Your task to perform on an android device: What's on my calendar today? Image 0: 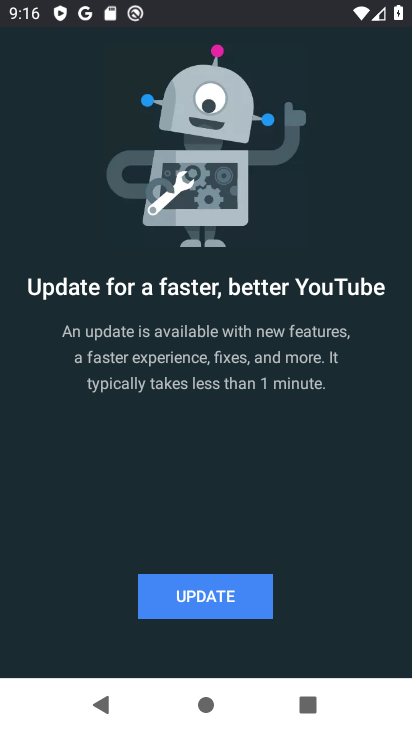
Step 0: press home button
Your task to perform on an android device: What's on my calendar today? Image 1: 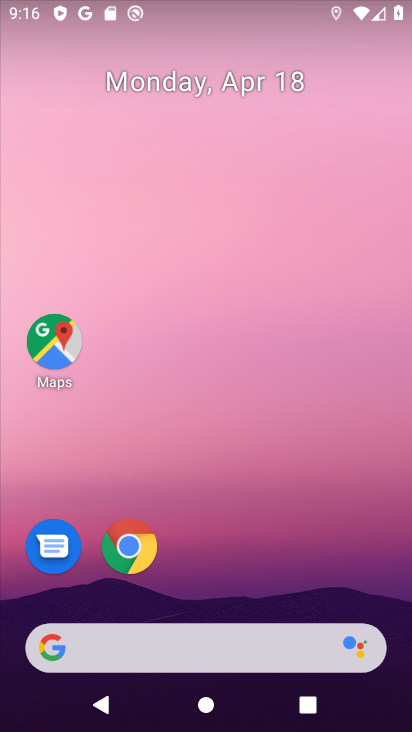
Step 1: drag from (206, 599) to (284, 161)
Your task to perform on an android device: What's on my calendar today? Image 2: 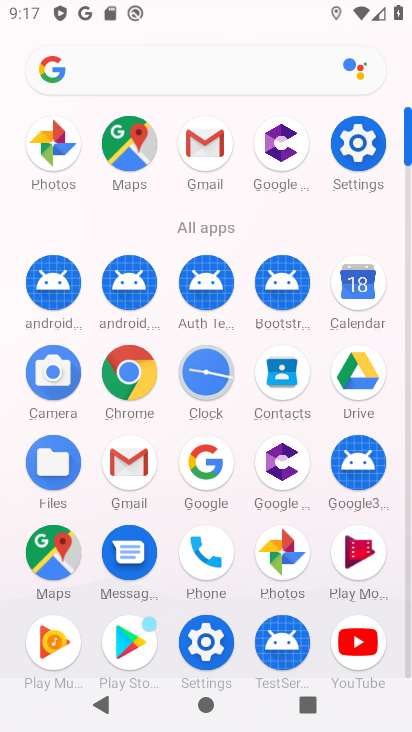
Step 2: click (367, 301)
Your task to perform on an android device: What's on my calendar today? Image 3: 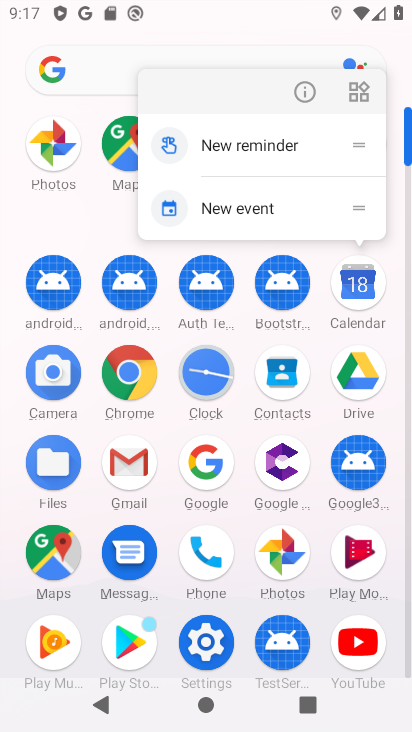
Step 3: click (356, 301)
Your task to perform on an android device: What's on my calendar today? Image 4: 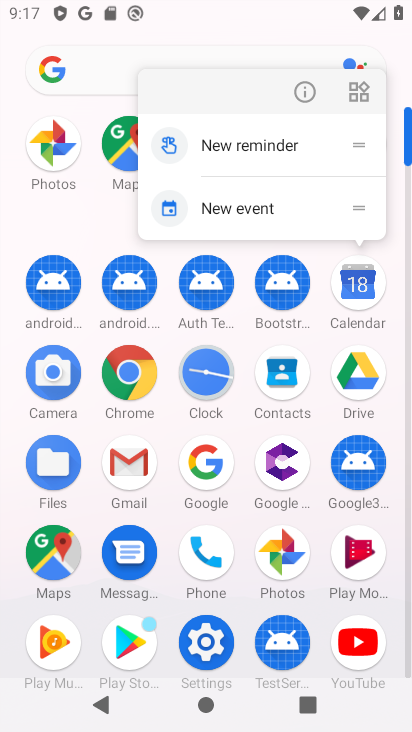
Step 4: click (356, 301)
Your task to perform on an android device: What's on my calendar today? Image 5: 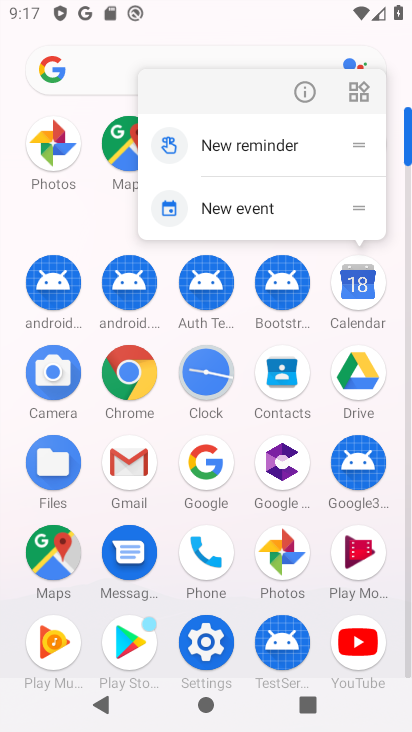
Step 5: click (356, 301)
Your task to perform on an android device: What's on my calendar today? Image 6: 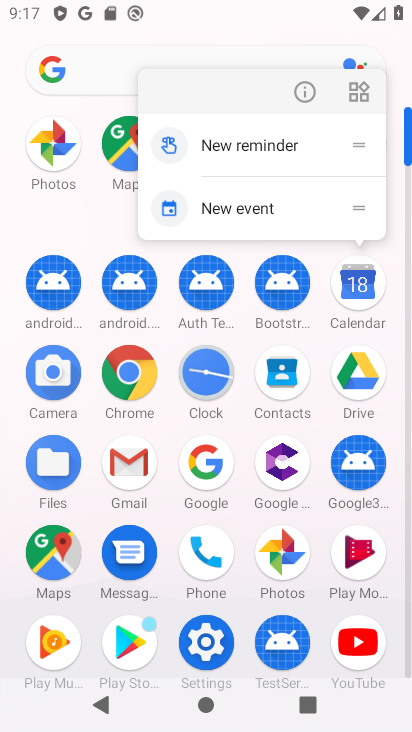
Step 6: click (358, 301)
Your task to perform on an android device: What's on my calendar today? Image 7: 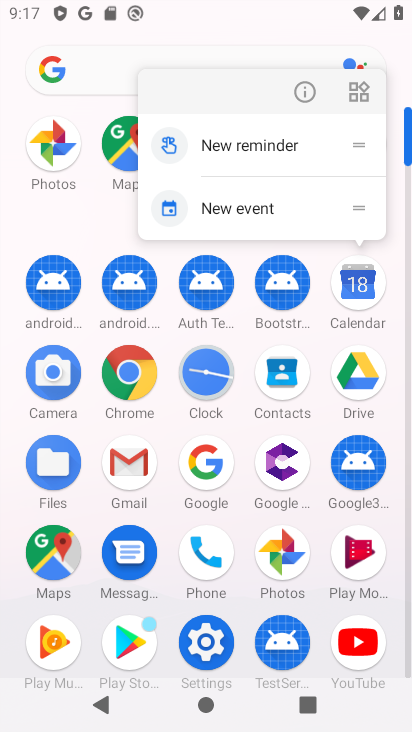
Step 7: click (358, 301)
Your task to perform on an android device: What's on my calendar today? Image 8: 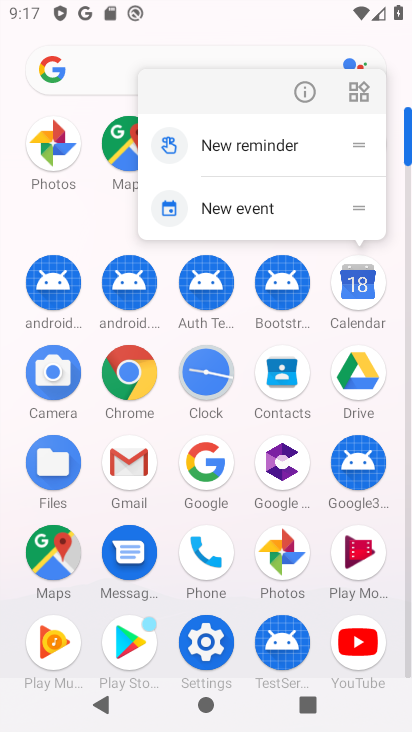
Step 8: click (358, 301)
Your task to perform on an android device: What's on my calendar today? Image 9: 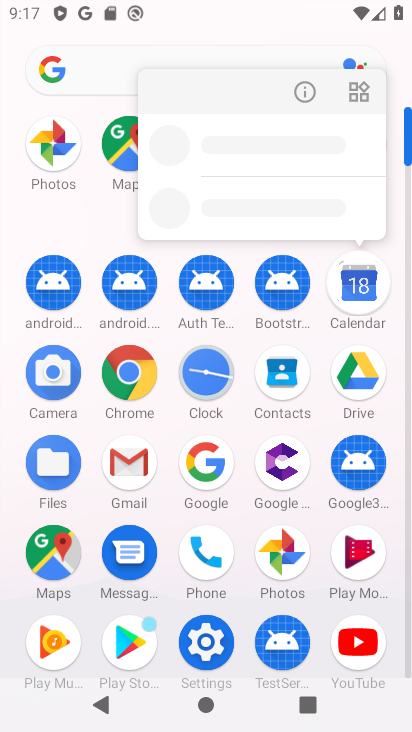
Step 9: click (372, 301)
Your task to perform on an android device: What's on my calendar today? Image 10: 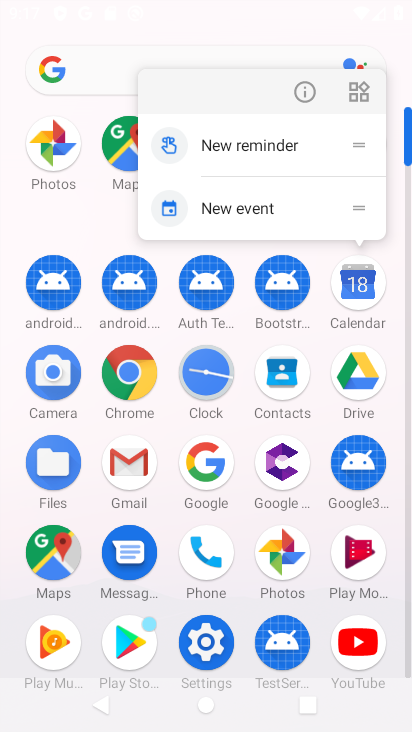
Step 10: click (366, 307)
Your task to perform on an android device: What's on my calendar today? Image 11: 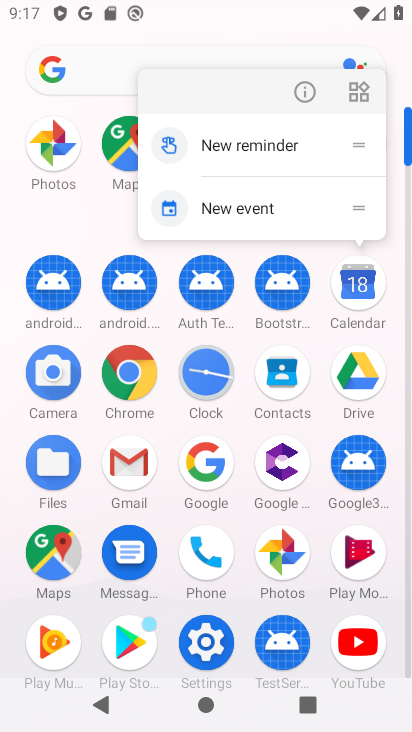
Step 11: click (356, 272)
Your task to perform on an android device: What's on my calendar today? Image 12: 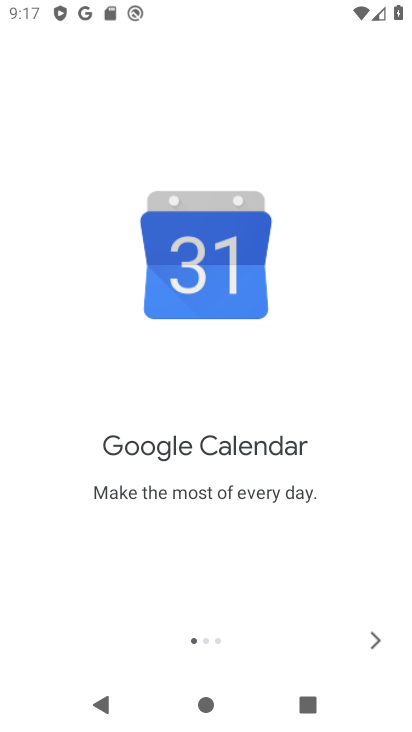
Step 12: click (365, 650)
Your task to perform on an android device: What's on my calendar today? Image 13: 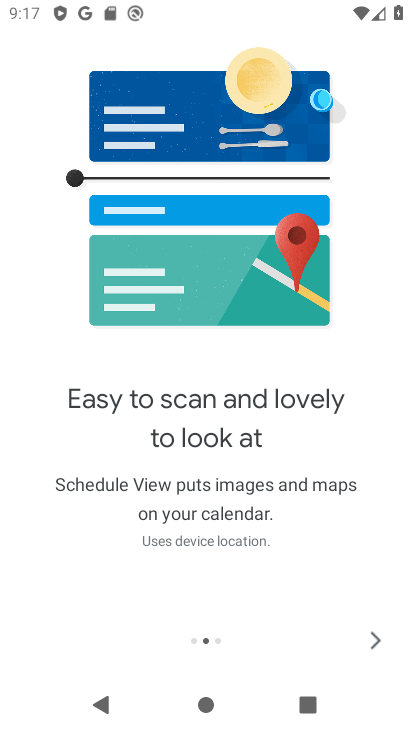
Step 13: click (365, 650)
Your task to perform on an android device: What's on my calendar today? Image 14: 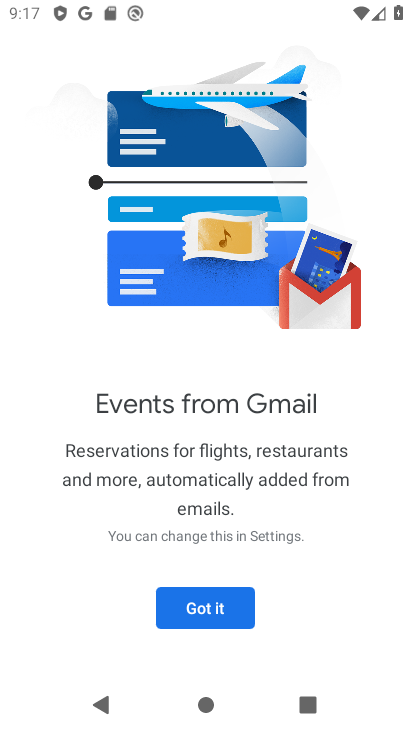
Step 14: click (227, 603)
Your task to perform on an android device: What's on my calendar today? Image 15: 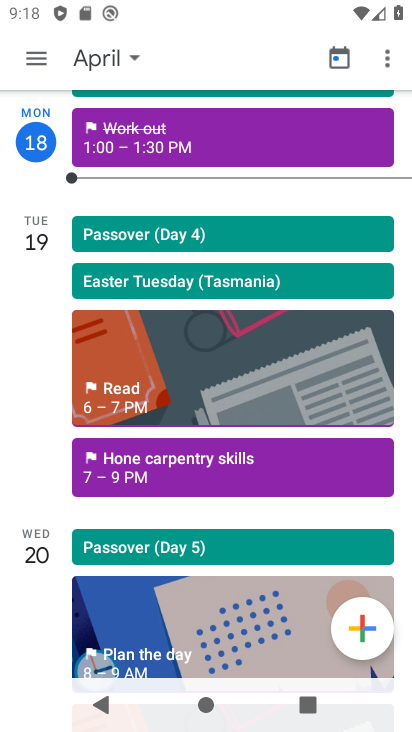
Step 15: click (134, 51)
Your task to perform on an android device: What's on my calendar today? Image 16: 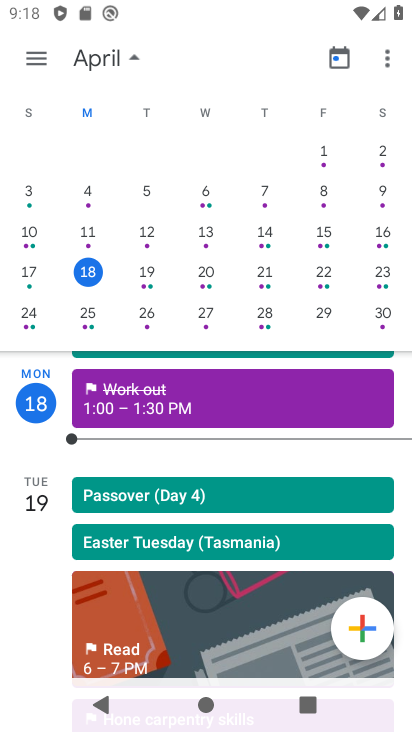
Step 16: click (79, 273)
Your task to perform on an android device: What's on my calendar today? Image 17: 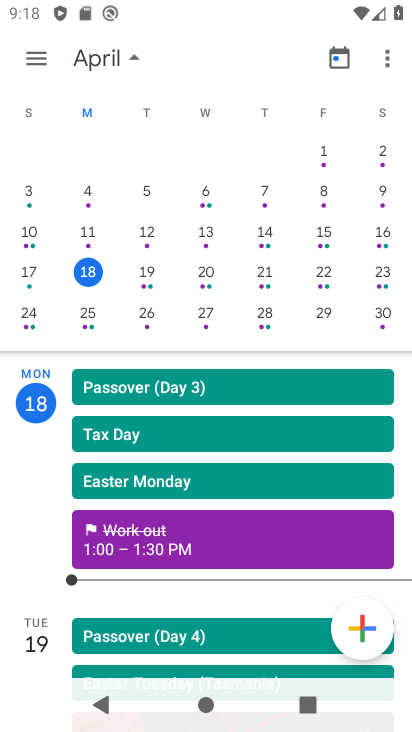
Step 17: click (38, 528)
Your task to perform on an android device: What's on my calendar today? Image 18: 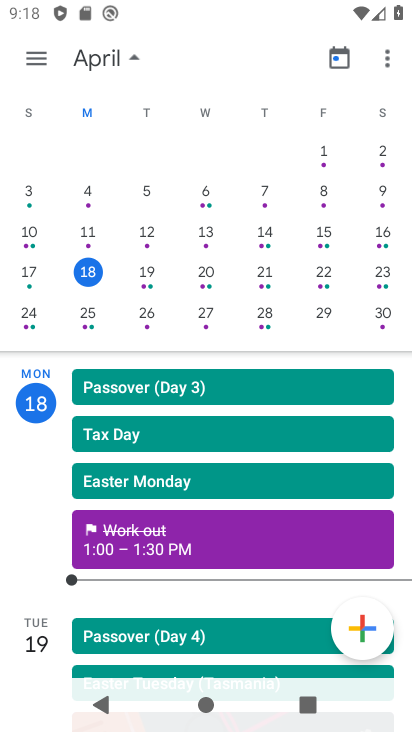
Step 18: task complete